Your task to perform on an android device: Search for sushi restaurants on Maps Image 0: 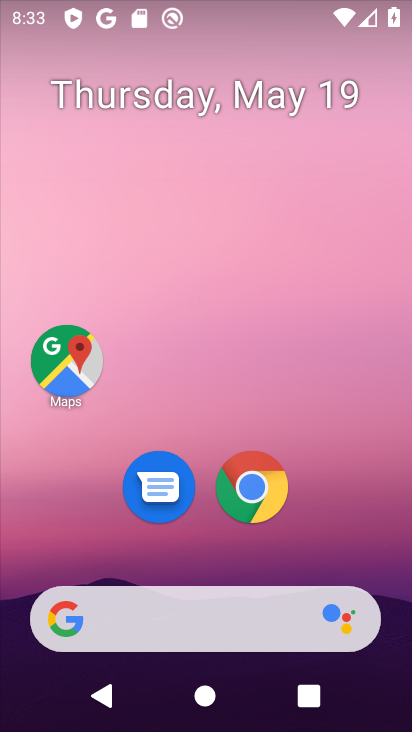
Step 0: drag from (256, 575) to (202, 69)
Your task to perform on an android device: Search for sushi restaurants on Maps Image 1: 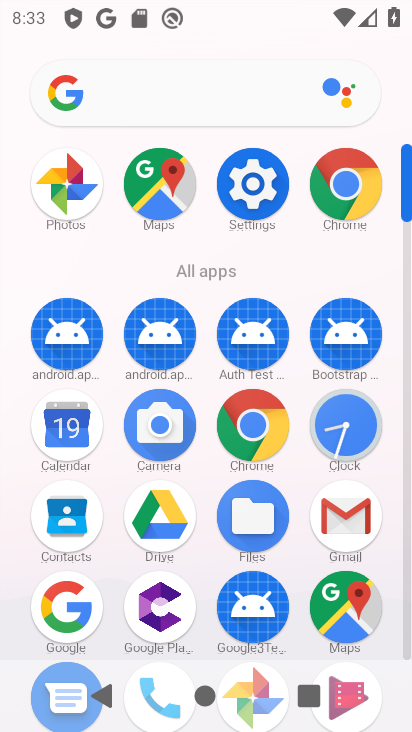
Step 1: click (323, 606)
Your task to perform on an android device: Search for sushi restaurants on Maps Image 2: 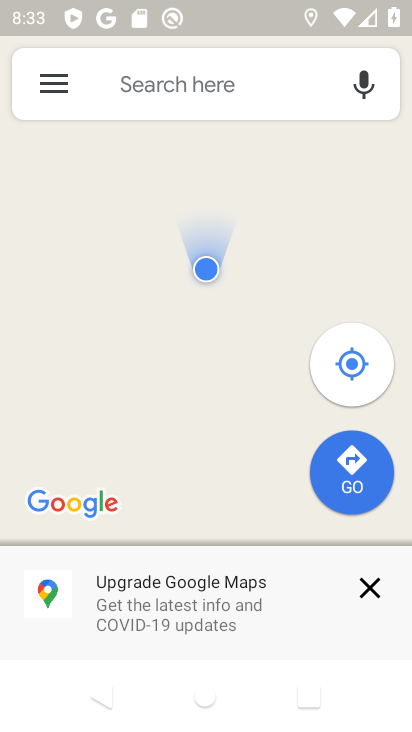
Step 2: click (184, 117)
Your task to perform on an android device: Search for sushi restaurants on Maps Image 3: 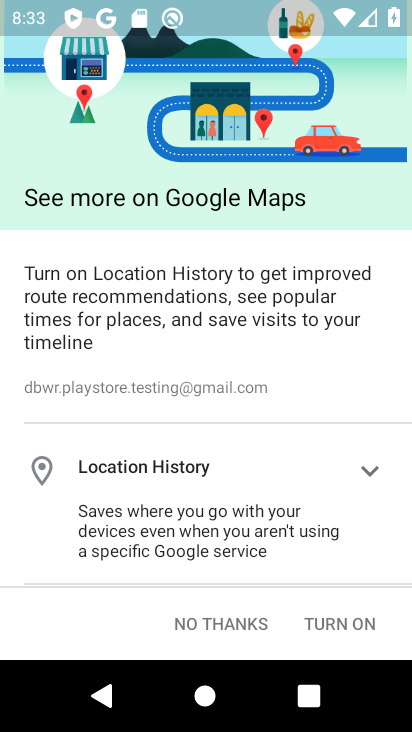
Step 3: click (369, 621)
Your task to perform on an android device: Search for sushi restaurants on Maps Image 4: 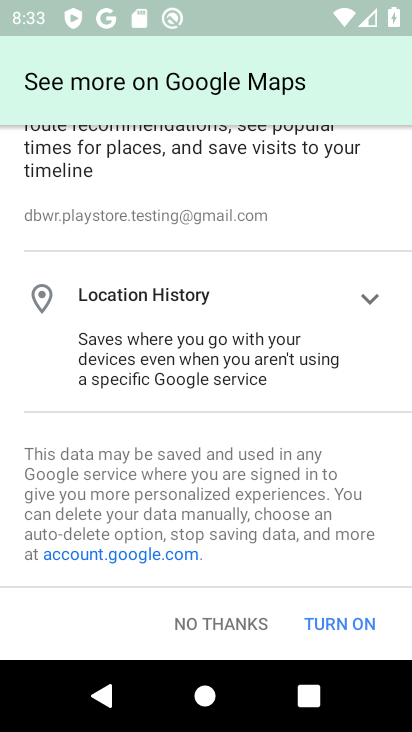
Step 4: click (369, 618)
Your task to perform on an android device: Search for sushi restaurants on Maps Image 5: 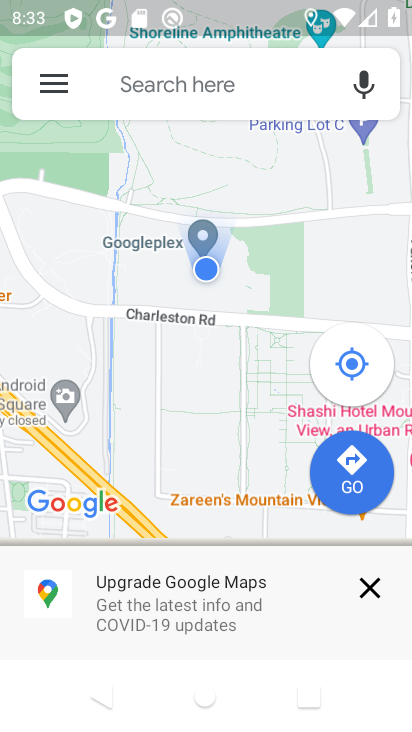
Step 5: click (214, 83)
Your task to perform on an android device: Search for sushi restaurants on Maps Image 6: 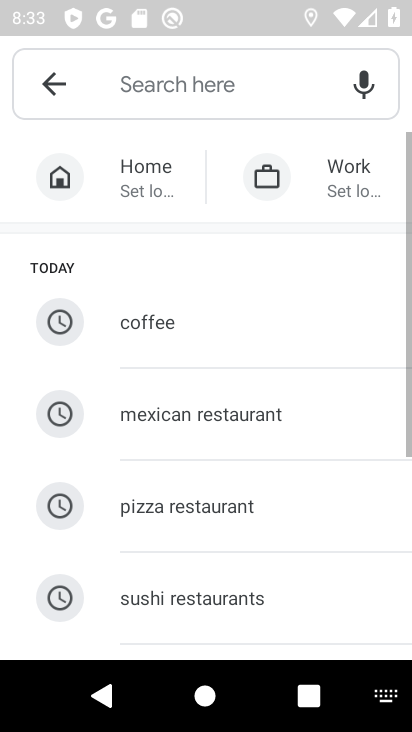
Step 6: click (206, 592)
Your task to perform on an android device: Search for sushi restaurants on Maps Image 7: 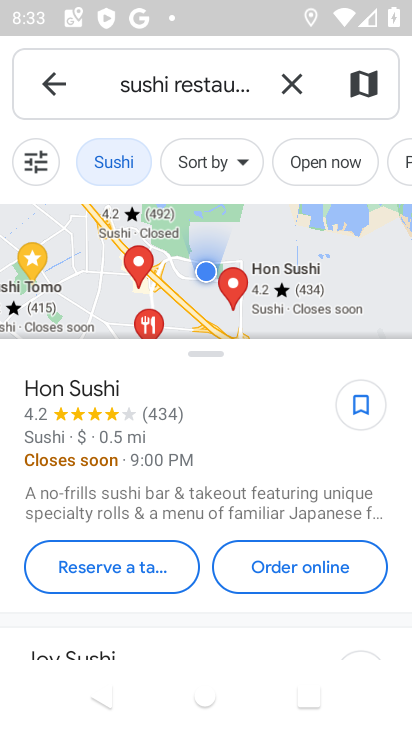
Step 7: task complete